Your task to perform on an android device: Go to accessibility settings Image 0: 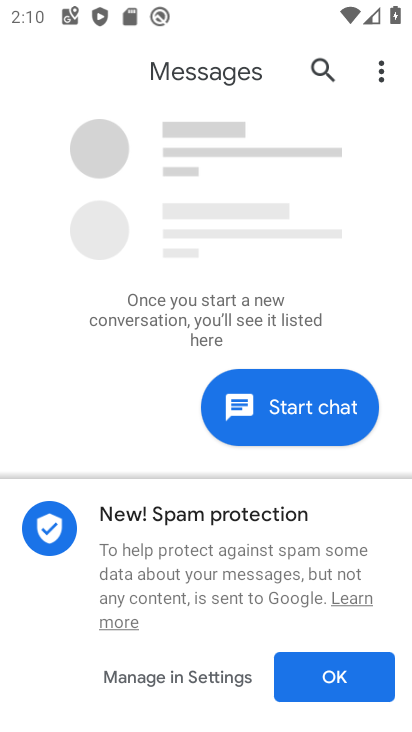
Step 0: press home button
Your task to perform on an android device: Go to accessibility settings Image 1: 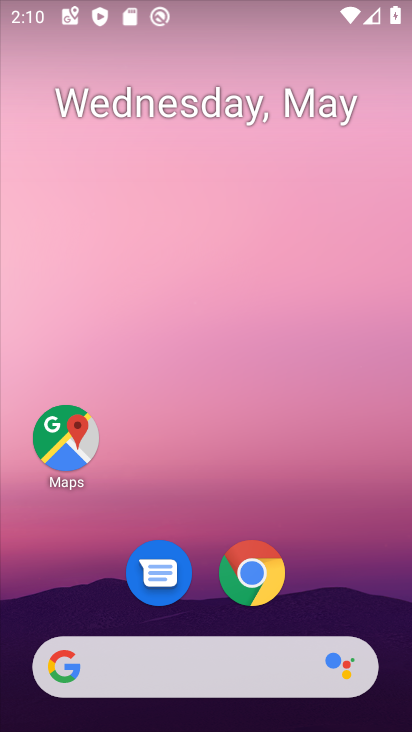
Step 1: drag from (218, 513) to (224, 40)
Your task to perform on an android device: Go to accessibility settings Image 2: 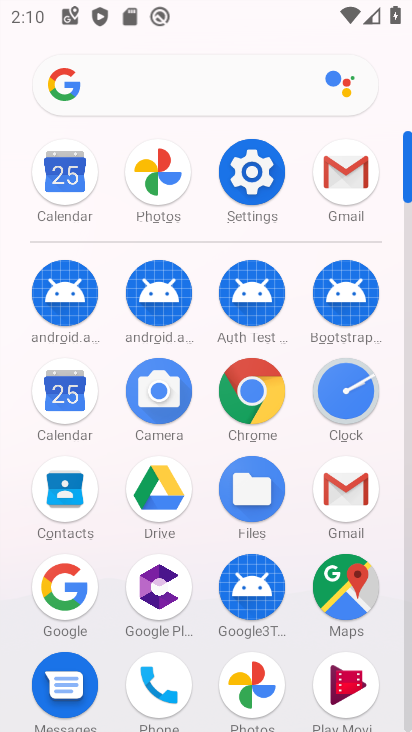
Step 2: click (247, 178)
Your task to perform on an android device: Go to accessibility settings Image 3: 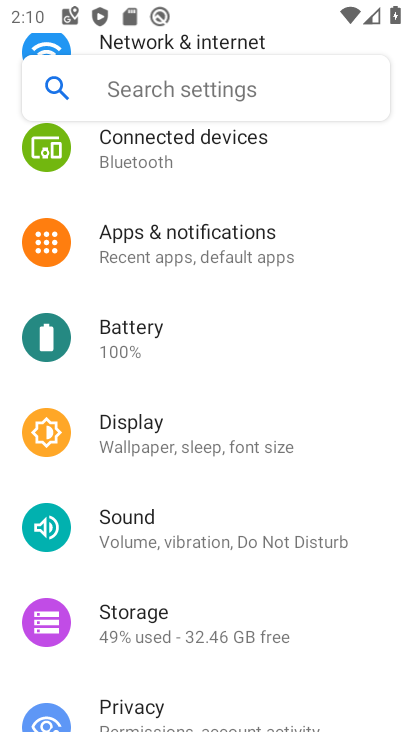
Step 3: drag from (252, 595) to (248, 120)
Your task to perform on an android device: Go to accessibility settings Image 4: 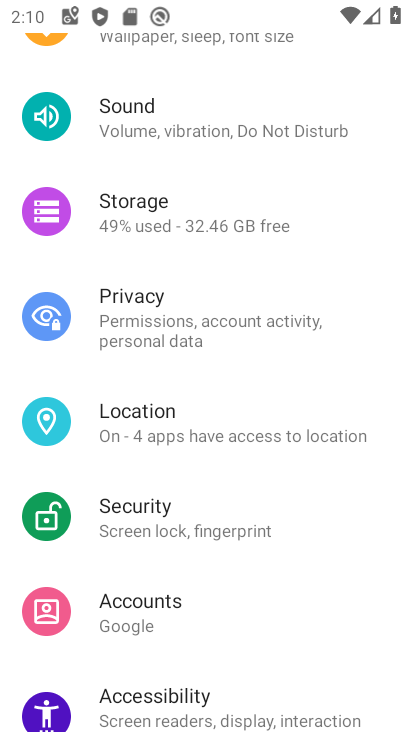
Step 4: drag from (239, 537) to (239, 119)
Your task to perform on an android device: Go to accessibility settings Image 5: 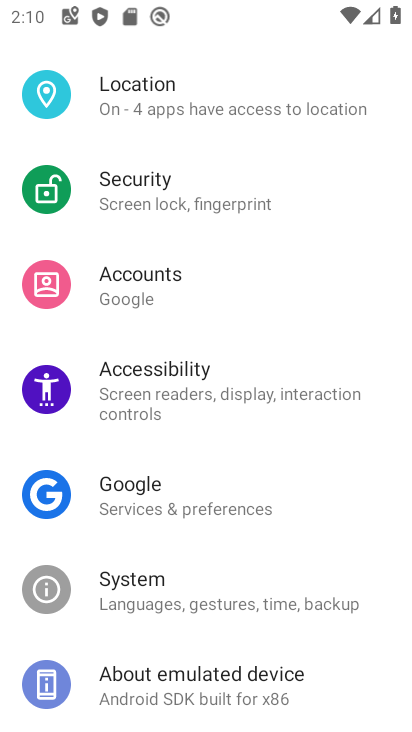
Step 5: click (210, 389)
Your task to perform on an android device: Go to accessibility settings Image 6: 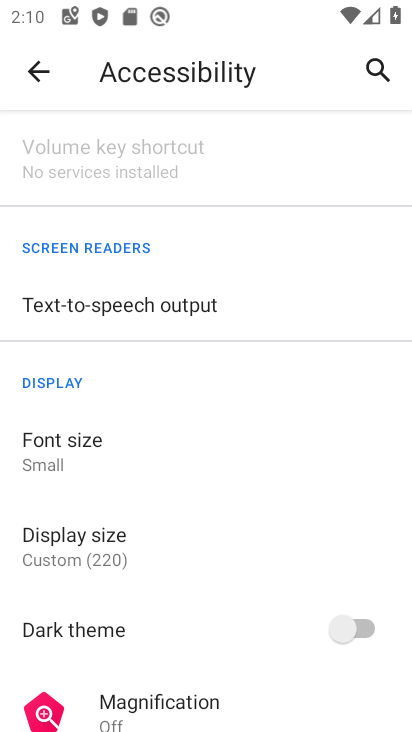
Step 6: task complete